Your task to perform on an android device: Open Amazon Image 0: 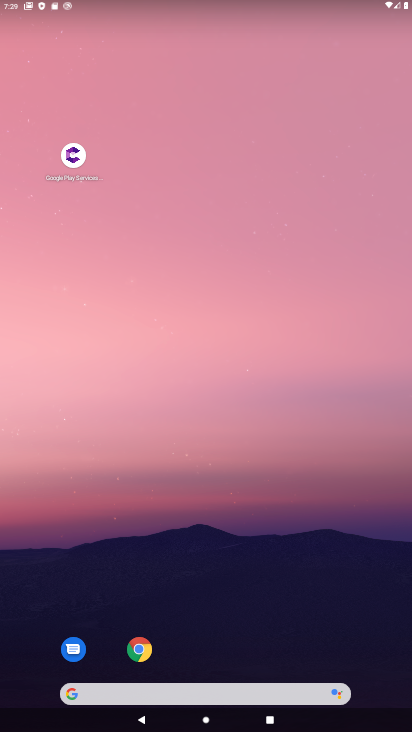
Step 0: click (139, 650)
Your task to perform on an android device: Open Amazon Image 1: 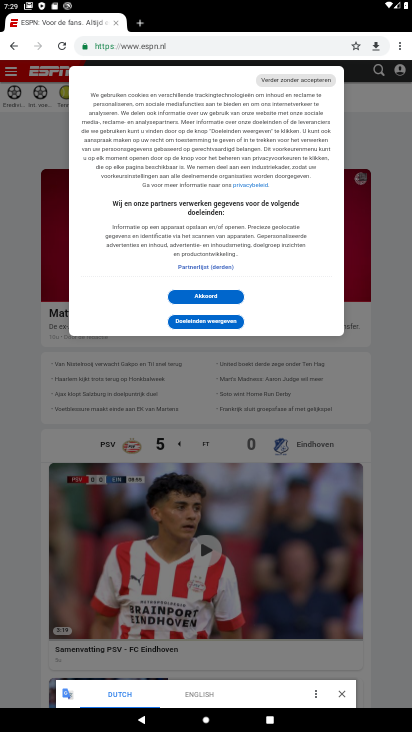
Step 1: click (267, 47)
Your task to perform on an android device: Open Amazon Image 2: 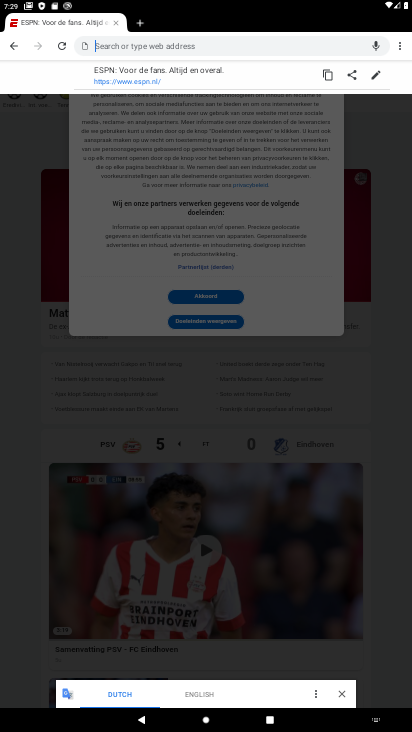
Step 2: type "Amazon"
Your task to perform on an android device: Open Amazon Image 3: 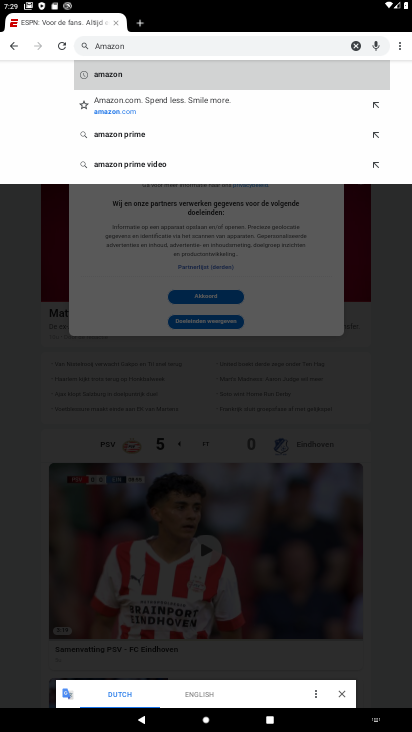
Step 3: click (132, 72)
Your task to perform on an android device: Open Amazon Image 4: 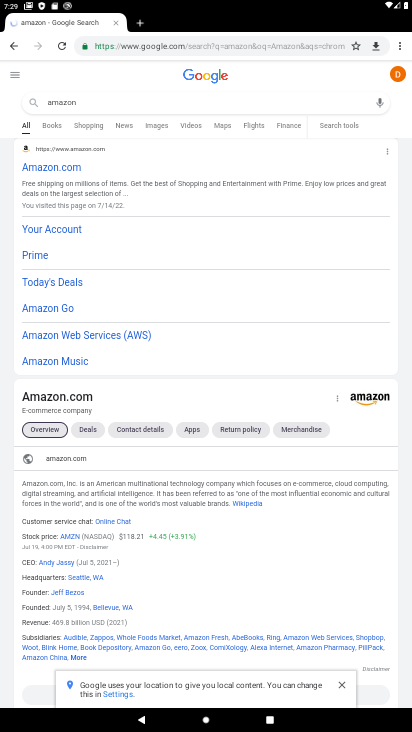
Step 4: click (61, 402)
Your task to perform on an android device: Open Amazon Image 5: 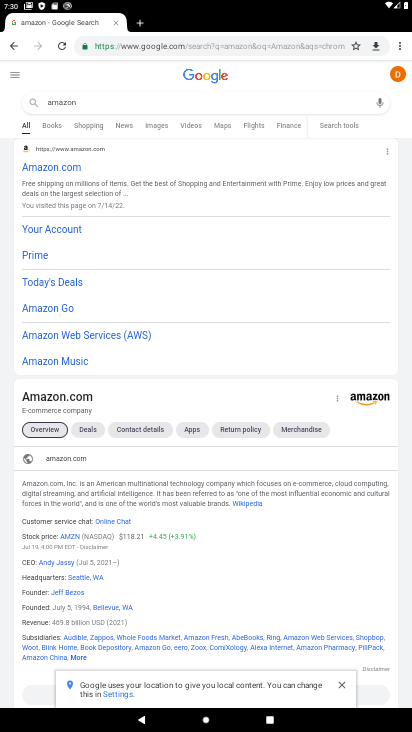
Step 5: click (71, 168)
Your task to perform on an android device: Open Amazon Image 6: 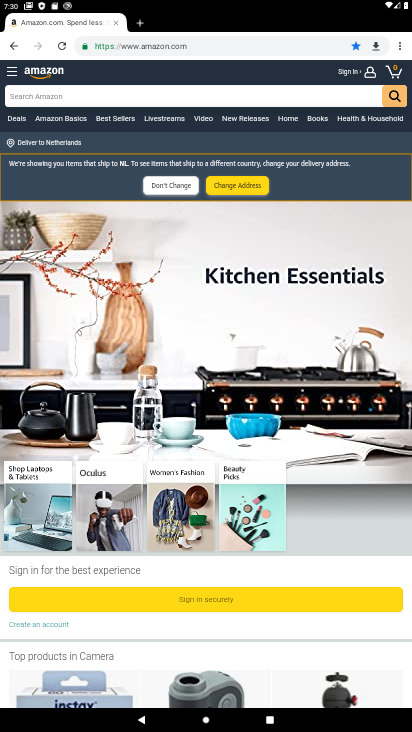
Step 6: task complete